Your task to perform on an android device: Show me the alarms in the clock app Image 0: 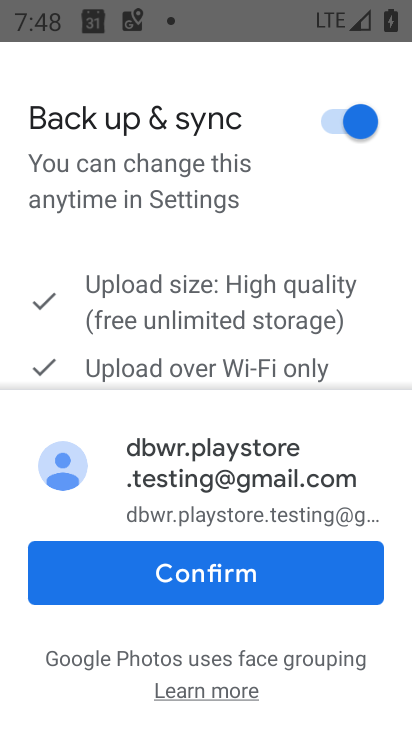
Step 0: press back button
Your task to perform on an android device: Show me the alarms in the clock app Image 1: 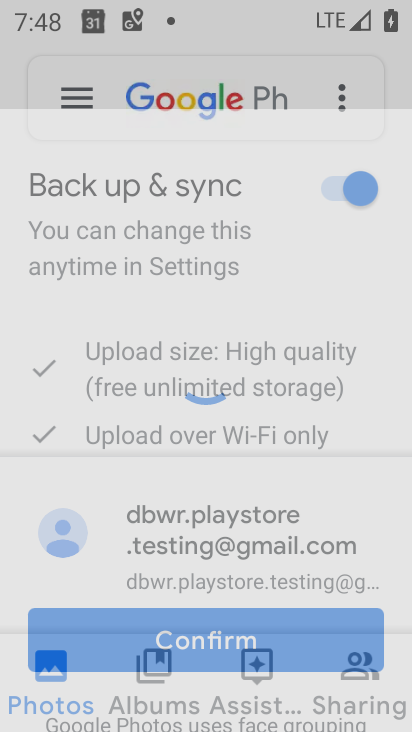
Step 1: press home button
Your task to perform on an android device: Show me the alarms in the clock app Image 2: 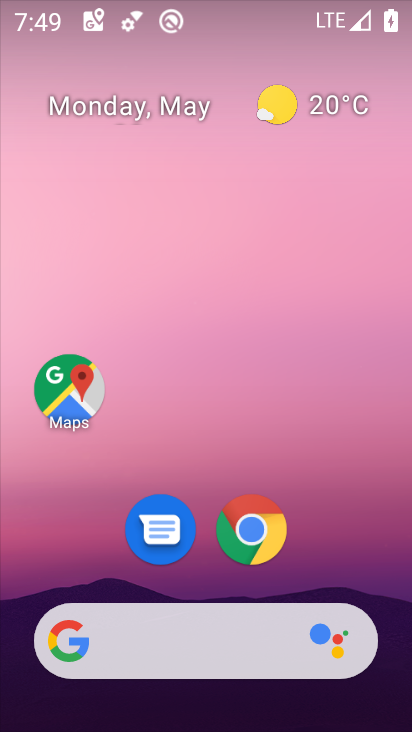
Step 2: drag from (6, 638) to (242, 213)
Your task to perform on an android device: Show me the alarms in the clock app Image 3: 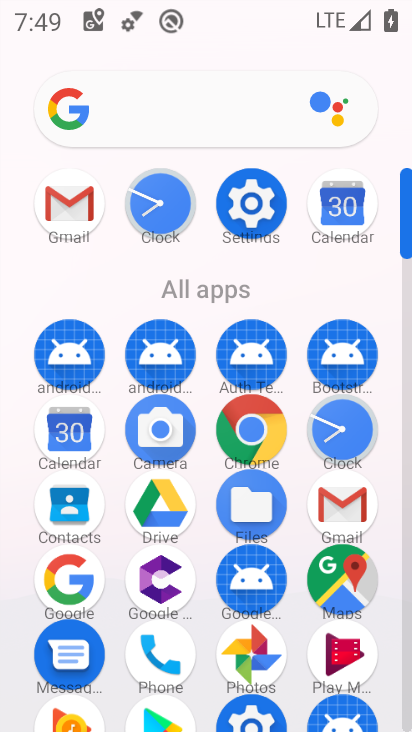
Step 3: click (323, 444)
Your task to perform on an android device: Show me the alarms in the clock app Image 4: 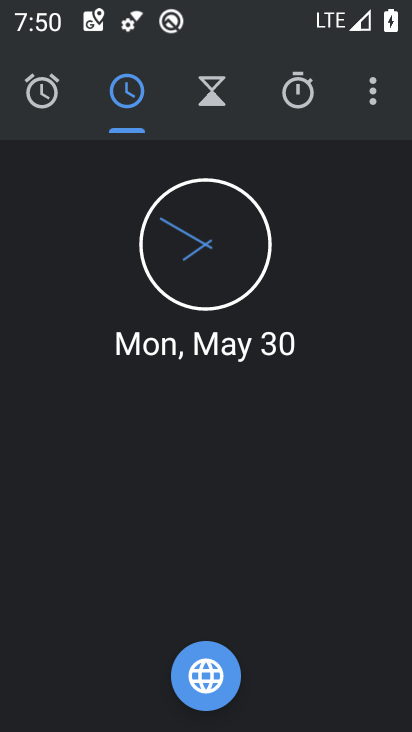
Step 4: click (53, 80)
Your task to perform on an android device: Show me the alarms in the clock app Image 5: 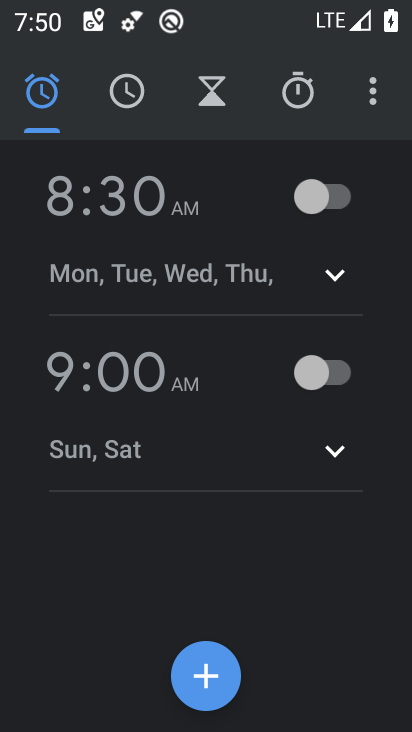
Step 5: task complete